Your task to perform on an android device: turn off location Image 0: 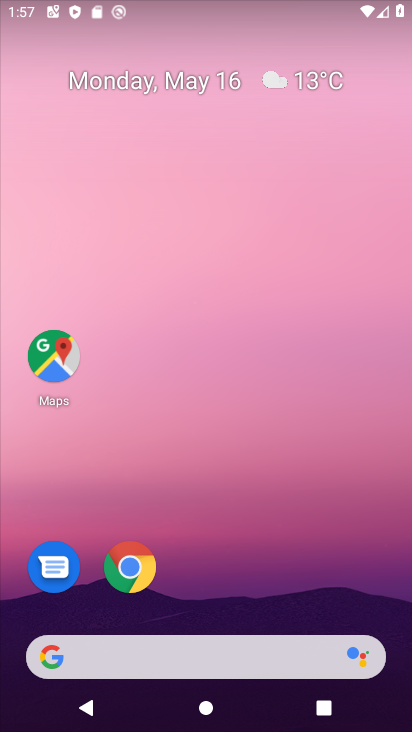
Step 0: drag from (235, 532) to (162, 135)
Your task to perform on an android device: turn off location Image 1: 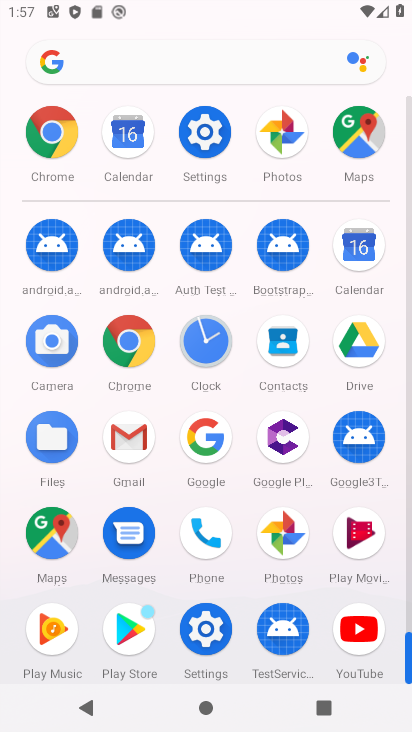
Step 1: click (215, 139)
Your task to perform on an android device: turn off location Image 2: 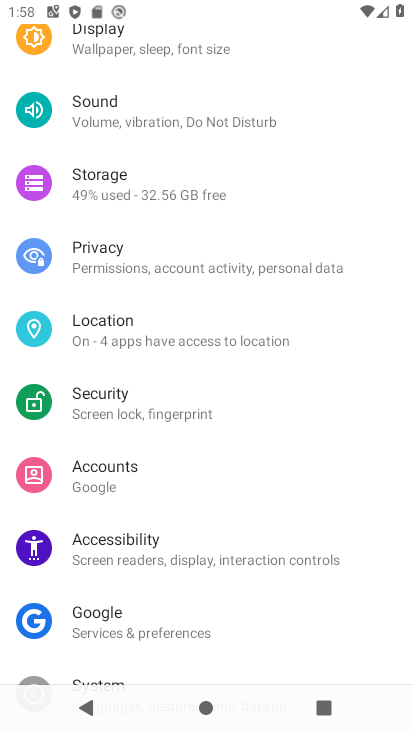
Step 2: click (103, 324)
Your task to perform on an android device: turn off location Image 3: 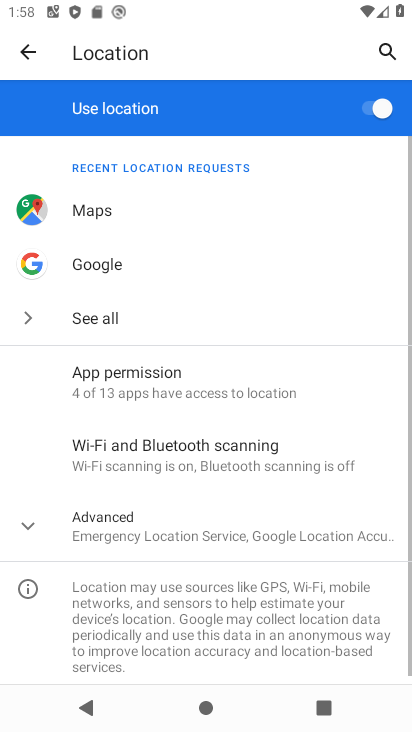
Step 3: click (377, 111)
Your task to perform on an android device: turn off location Image 4: 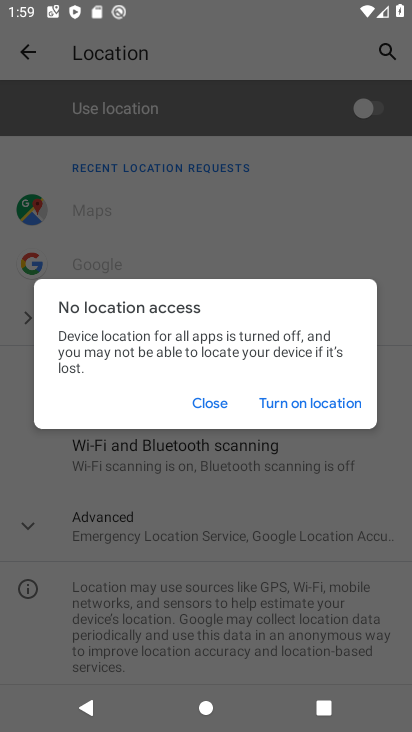
Step 4: click (204, 402)
Your task to perform on an android device: turn off location Image 5: 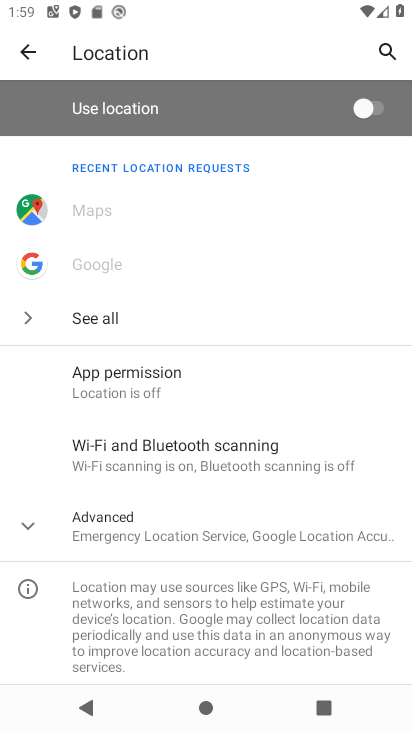
Step 5: task complete